Your task to perform on an android device: Go to Reddit.com Image 0: 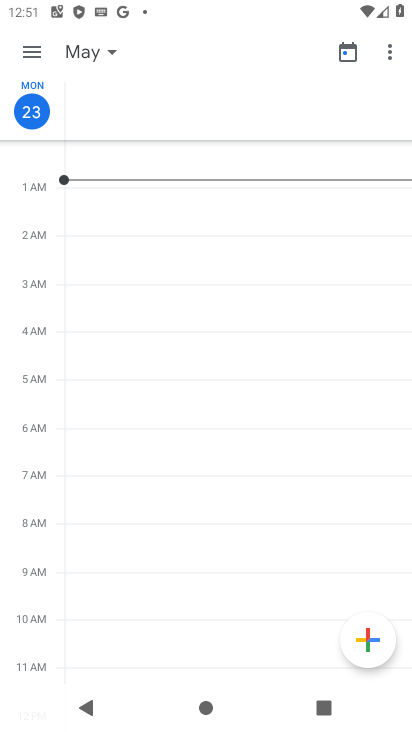
Step 0: press home button
Your task to perform on an android device: Go to Reddit.com Image 1: 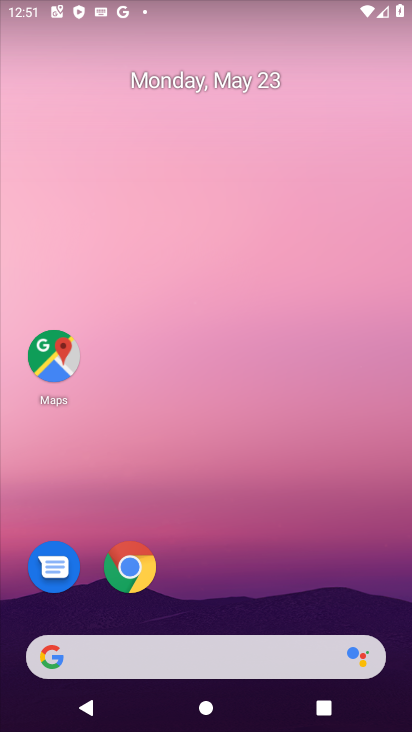
Step 1: click (127, 589)
Your task to perform on an android device: Go to Reddit.com Image 2: 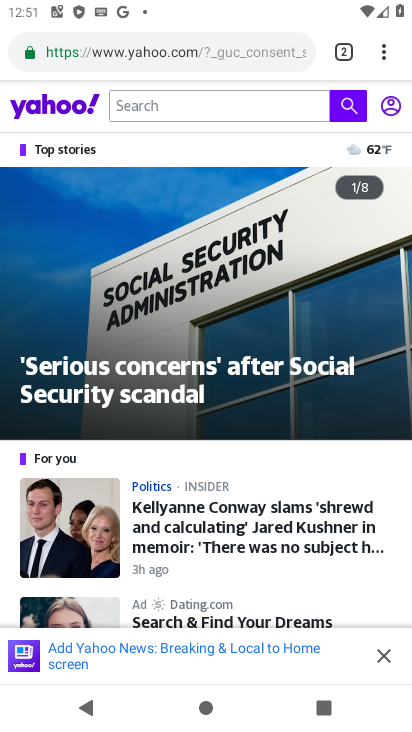
Step 2: click (175, 48)
Your task to perform on an android device: Go to Reddit.com Image 3: 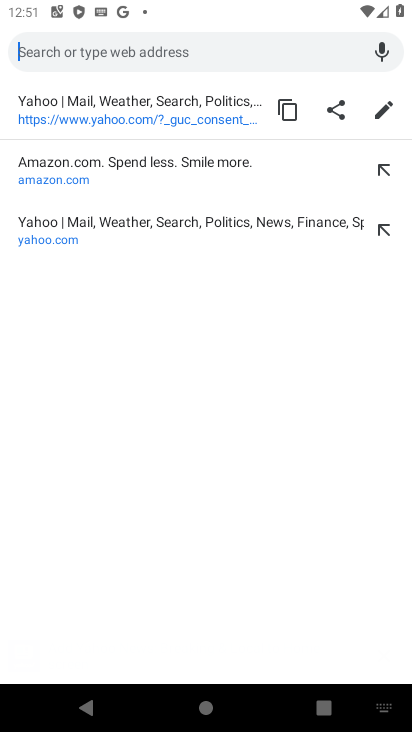
Step 3: click (175, 48)
Your task to perform on an android device: Go to Reddit.com Image 4: 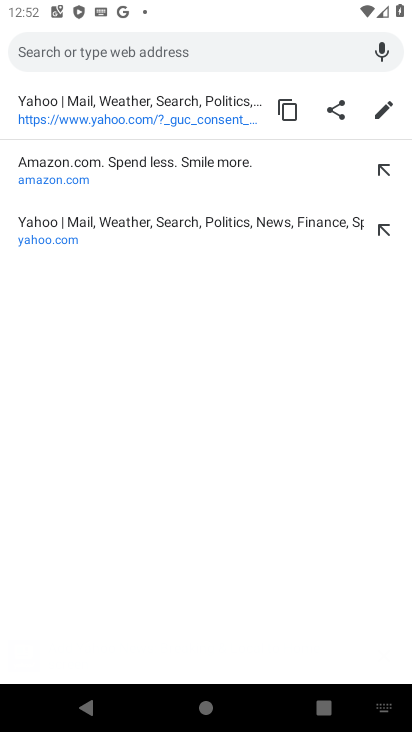
Step 4: type "Reddit.com"
Your task to perform on an android device: Go to Reddit.com Image 5: 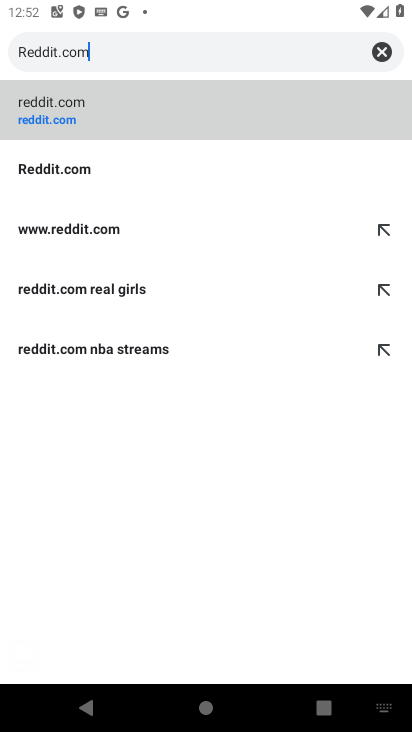
Step 5: click (53, 120)
Your task to perform on an android device: Go to Reddit.com Image 6: 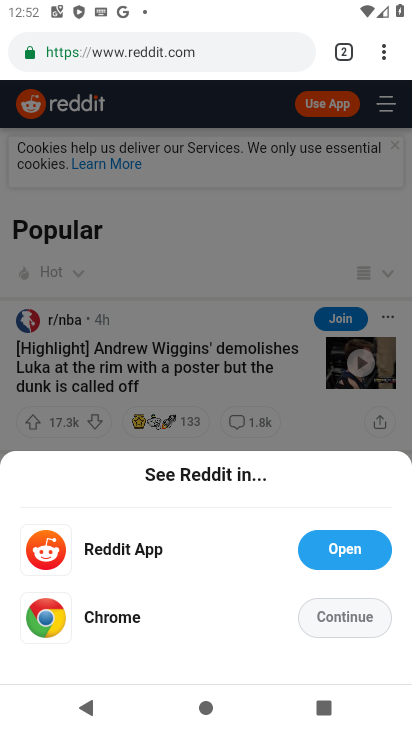
Step 6: click (344, 617)
Your task to perform on an android device: Go to Reddit.com Image 7: 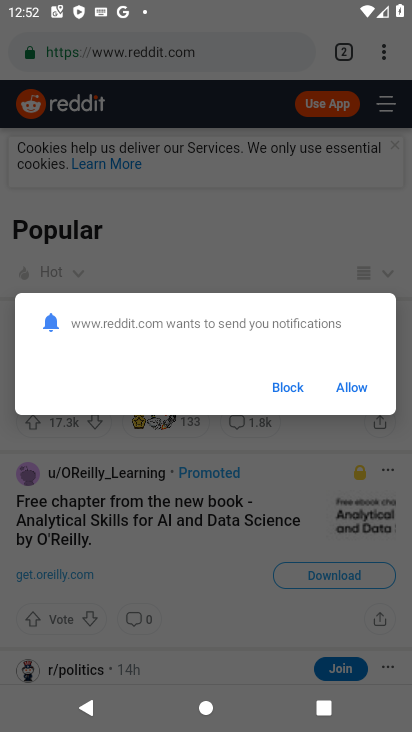
Step 7: task complete